Your task to perform on an android device: Show me popular videos on Youtube Image 0: 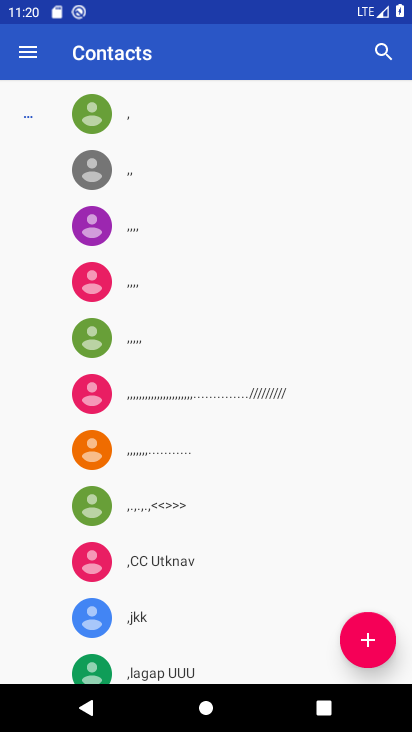
Step 0: press home button
Your task to perform on an android device: Show me popular videos on Youtube Image 1: 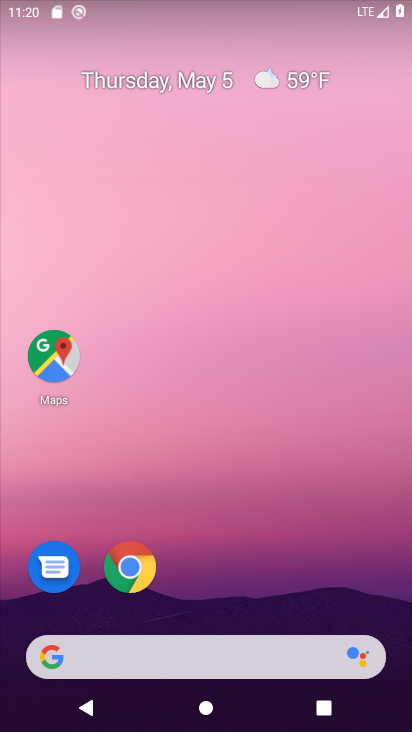
Step 1: drag from (372, 584) to (376, 14)
Your task to perform on an android device: Show me popular videos on Youtube Image 2: 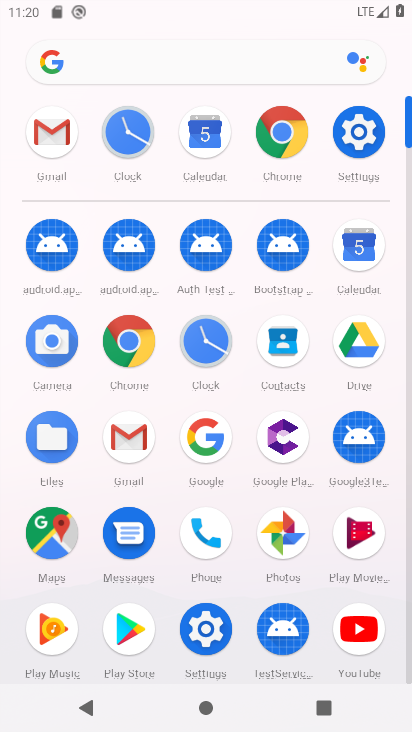
Step 2: click (351, 633)
Your task to perform on an android device: Show me popular videos on Youtube Image 3: 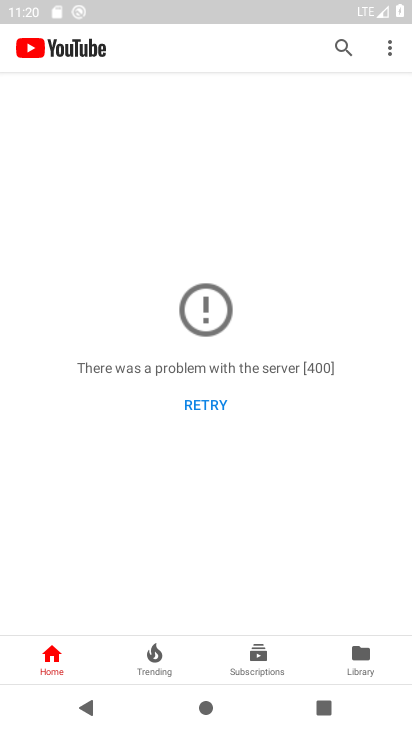
Step 3: task complete